Your task to perform on an android device: turn on sleep mode Image 0: 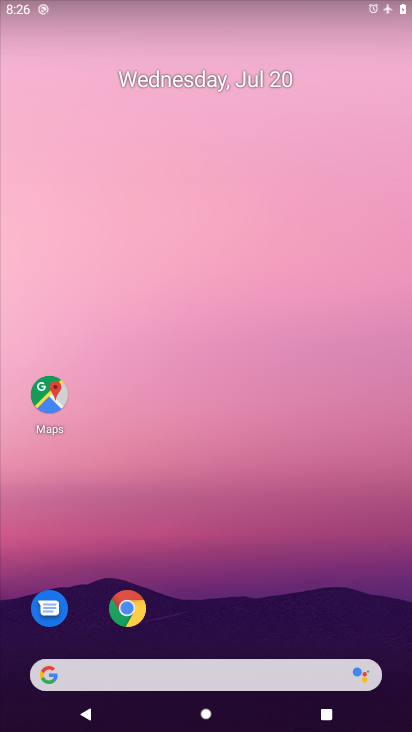
Step 0: drag from (222, 635) to (246, 7)
Your task to perform on an android device: turn on sleep mode Image 1: 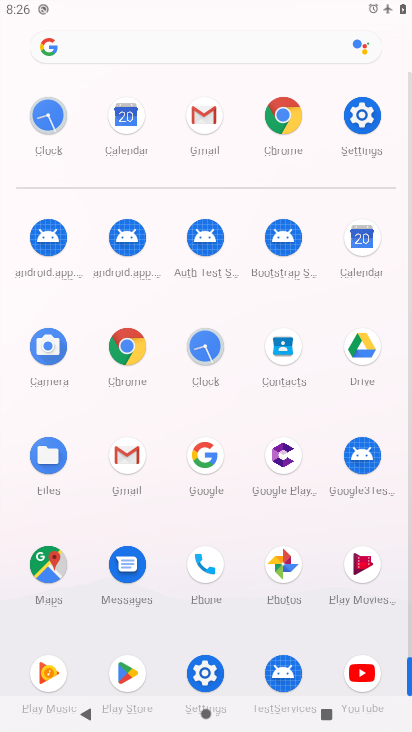
Step 1: click (368, 126)
Your task to perform on an android device: turn on sleep mode Image 2: 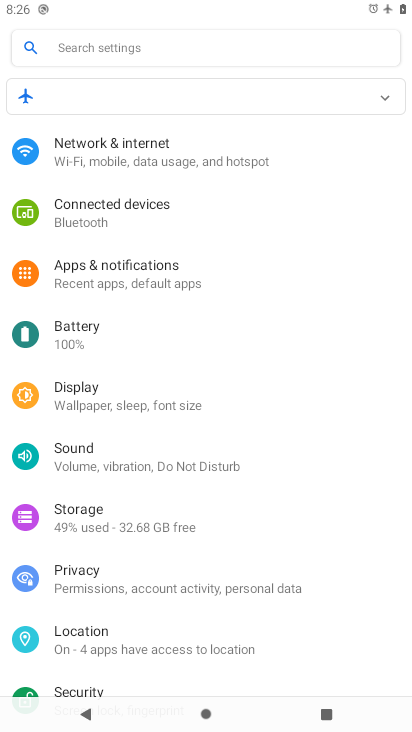
Step 2: click (235, 45)
Your task to perform on an android device: turn on sleep mode Image 3: 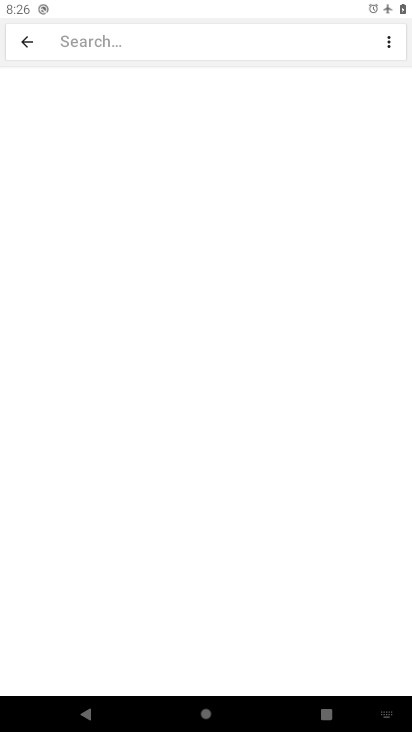
Step 3: type "sleep mode"
Your task to perform on an android device: turn on sleep mode Image 4: 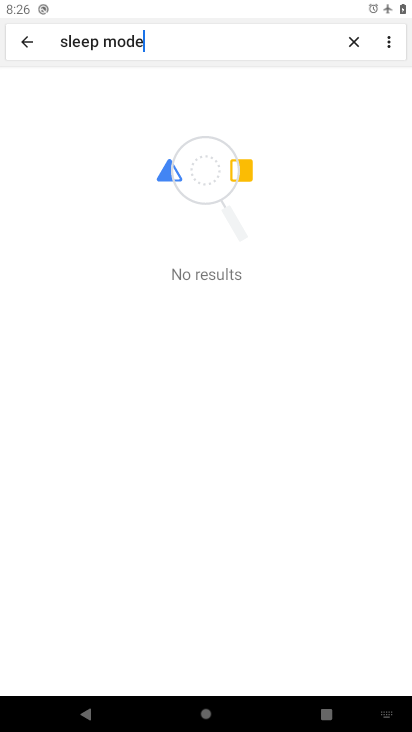
Step 4: click (164, 192)
Your task to perform on an android device: turn on sleep mode Image 5: 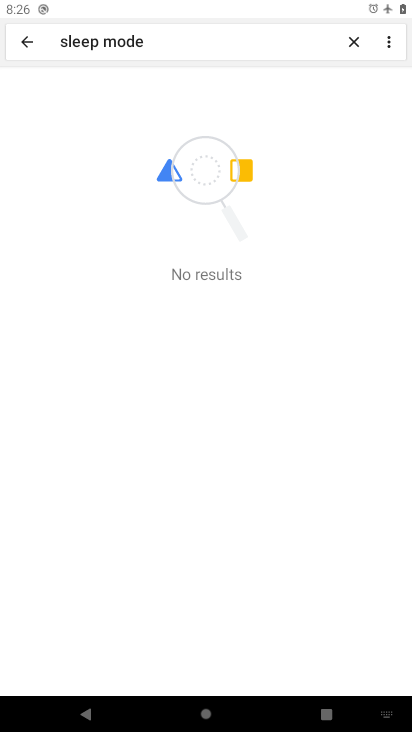
Step 5: task complete